Your task to perform on an android device: When is my next meeting? Image 0: 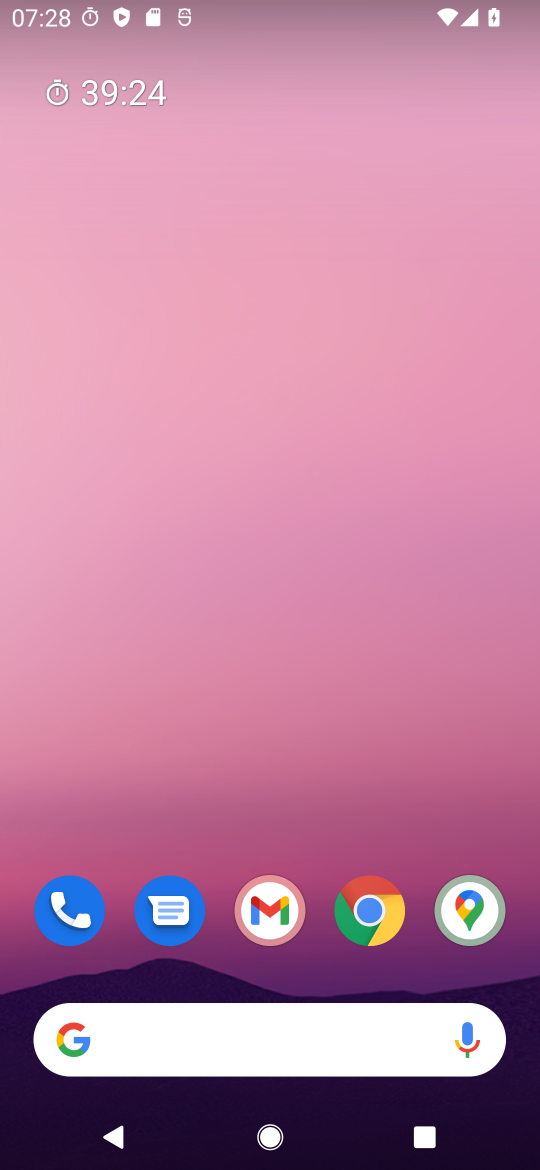
Step 0: drag from (159, 1056) to (202, 204)
Your task to perform on an android device: When is my next meeting? Image 1: 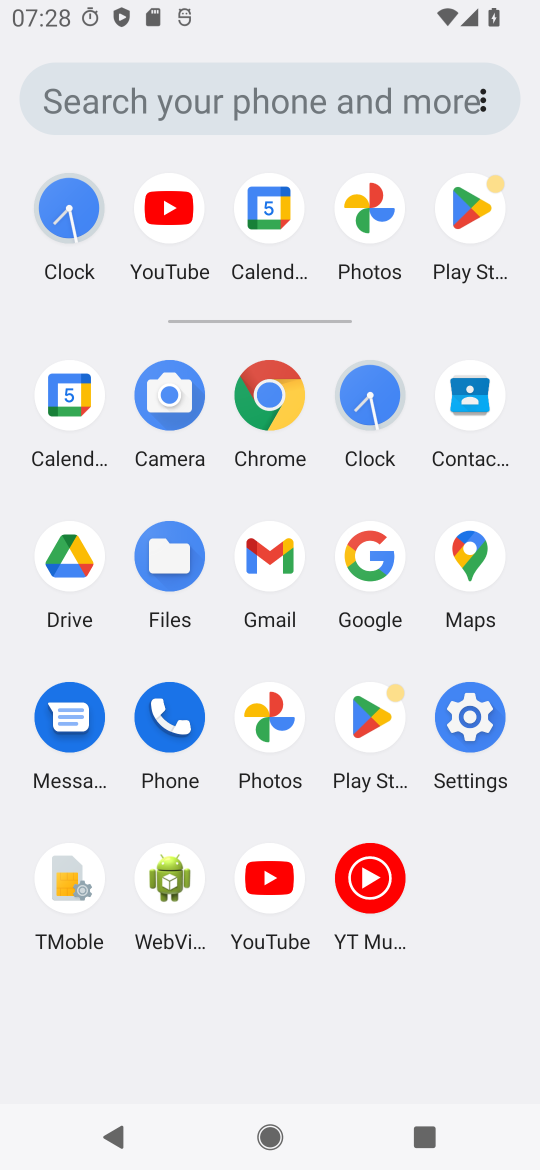
Step 1: click (46, 426)
Your task to perform on an android device: When is my next meeting? Image 2: 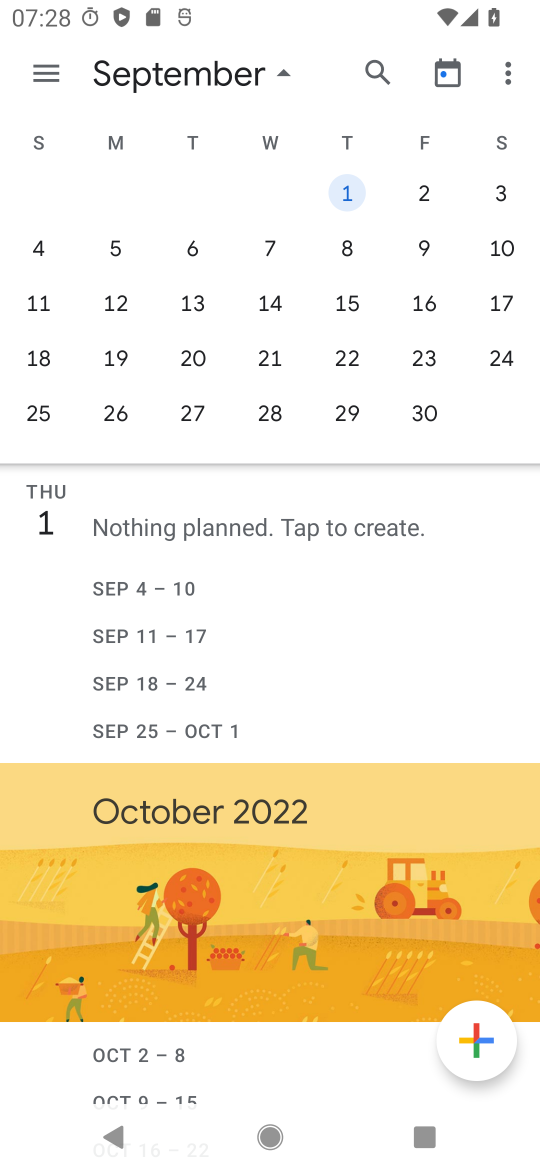
Step 2: drag from (11, 365) to (513, 575)
Your task to perform on an android device: When is my next meeting? Image 3: 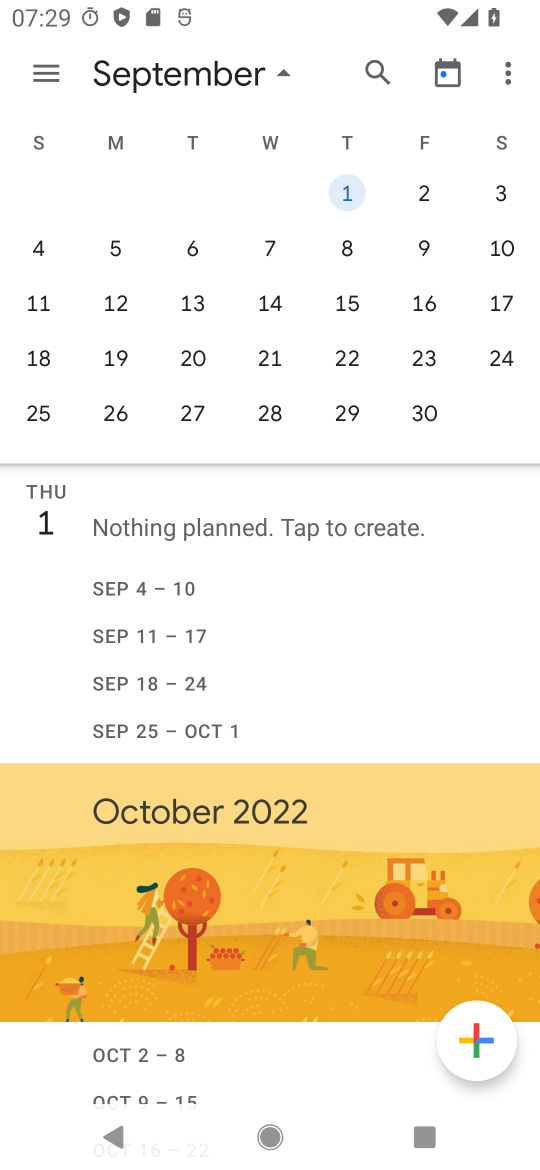
Step 3: drag from (46, 212) to (501, 257)
Your task to perform on an android device: When is my next meeting? Image 4: 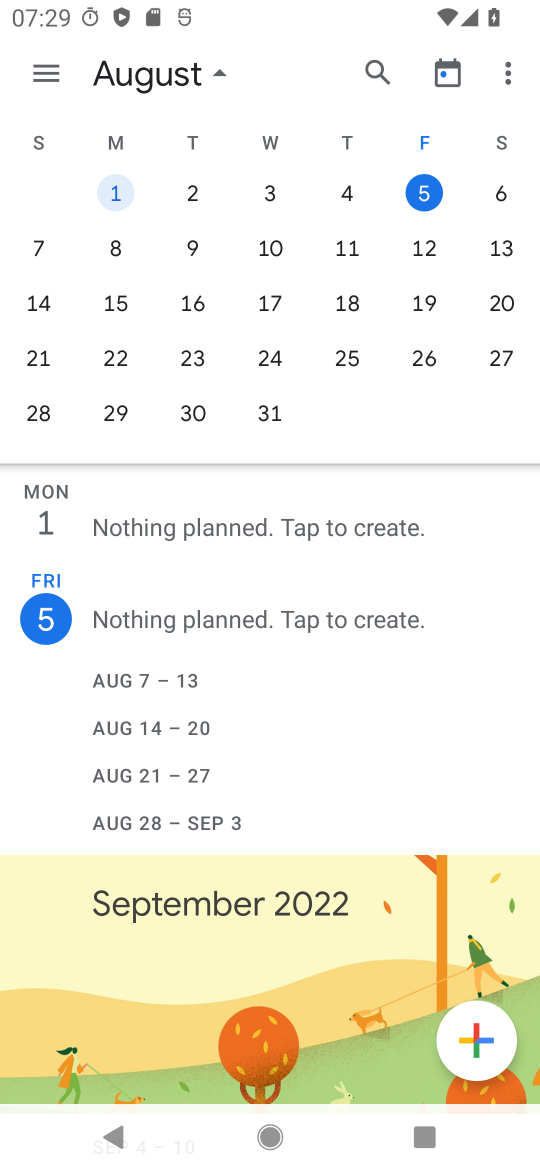
Step 4: drag from (79, 309) to (285, 322)
Your task to perform on an android device: When is my next meeting? Image 5: 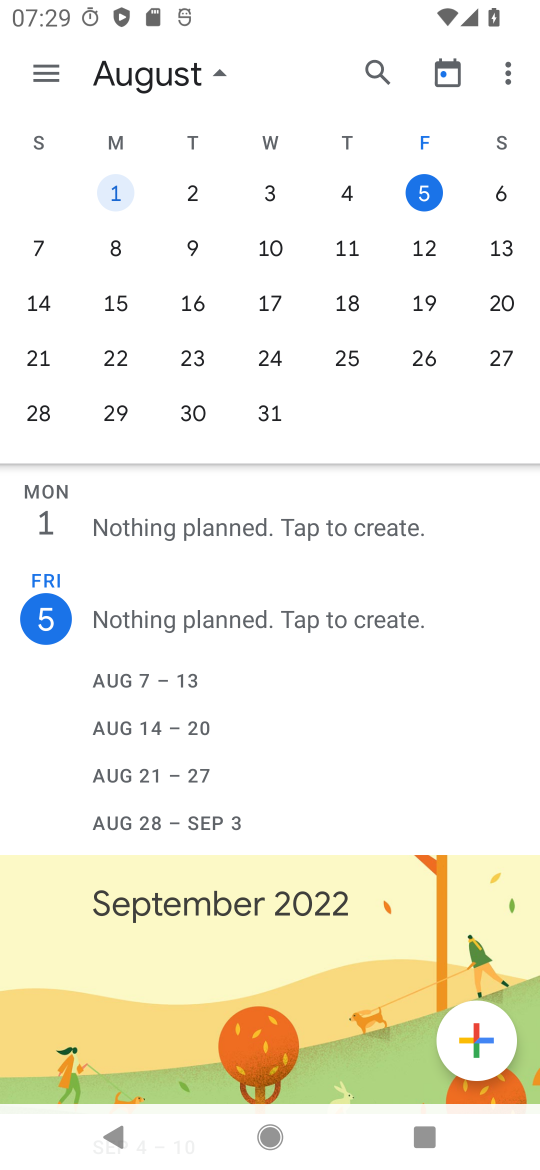
Step 5: click (409, 251)
Your task to perform on an android device: When is my next meeting? Image 6: 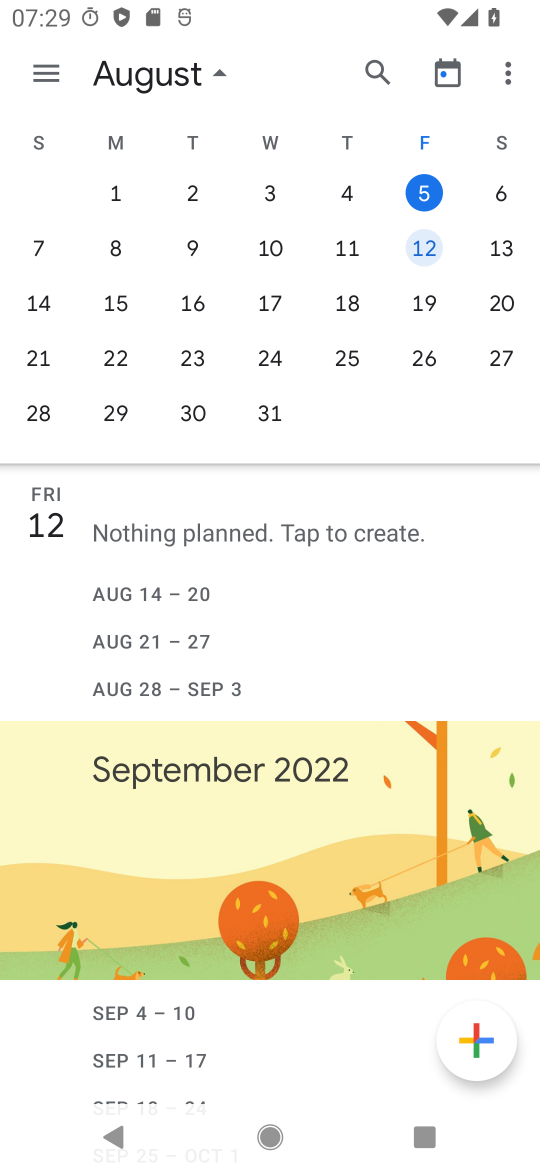
Step 6: task complete